Your task to perform on an android device: toggle pop-ups in chrome Image 0: 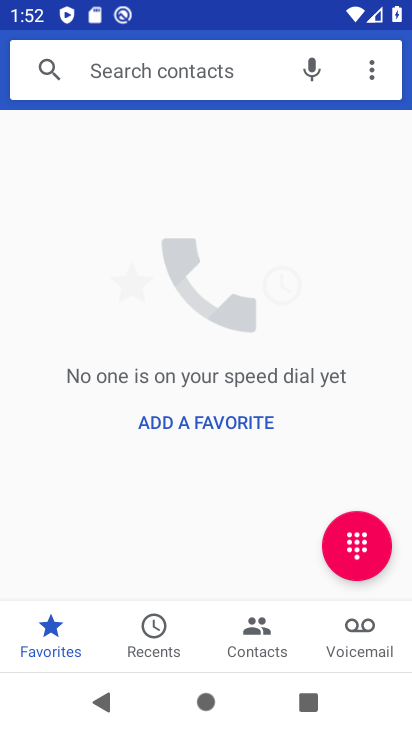
Step 0: press home button
Your task to perform on an android device: toggle pop-ups in chrome Image 1: 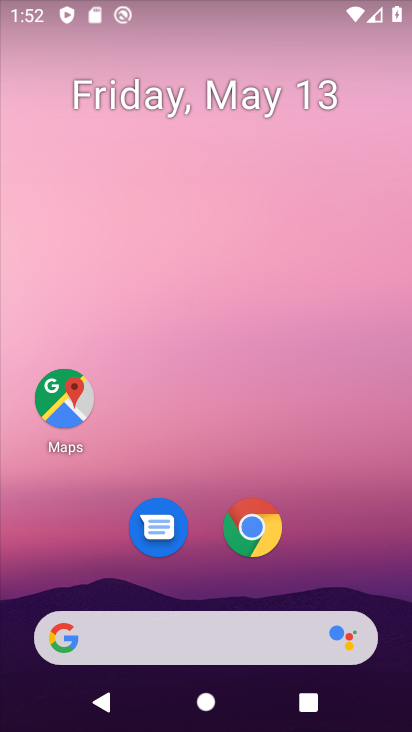
Step 1: drag from (369, 537) to (359, 173)
Your task to perform on an android device: toggle pop-ups in chrome Image 2: 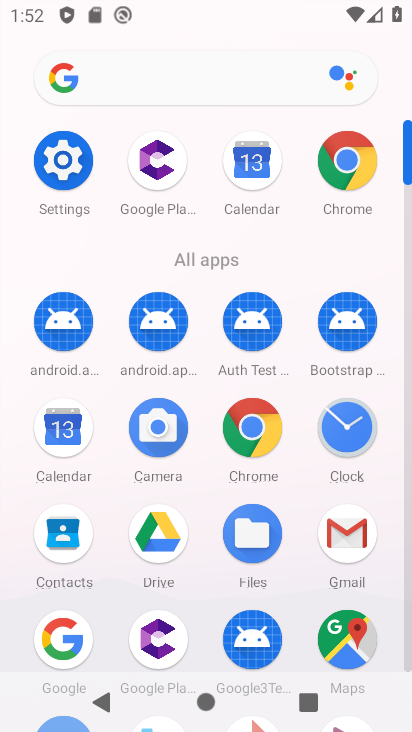
Step 2: click (357, 169)
Your task to perform on an android device: toggle pop-ups in chrome Image 3: 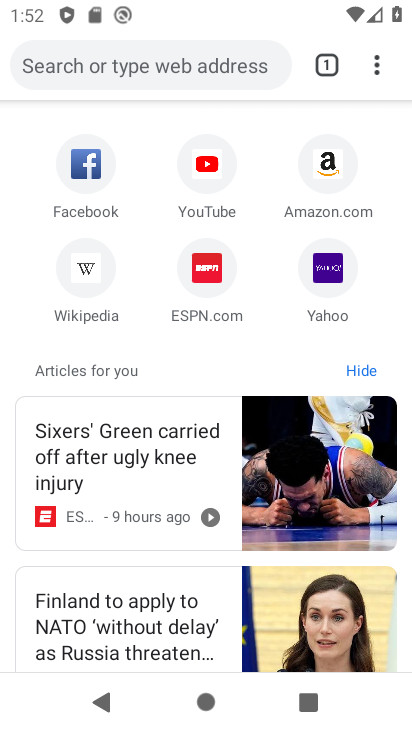
Step 3: drag from (382, 76) to (257, 532)
Your task to perform on an android device: toggle pop-ups in chrome Image 4: 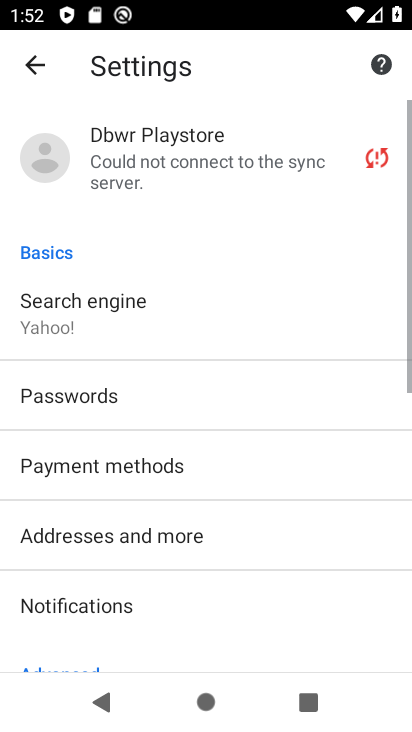
Step 4: drag from (263, 632) to (284, 372)
Your task to perform on an android device: toggle pop-ups in chrome Image 5: 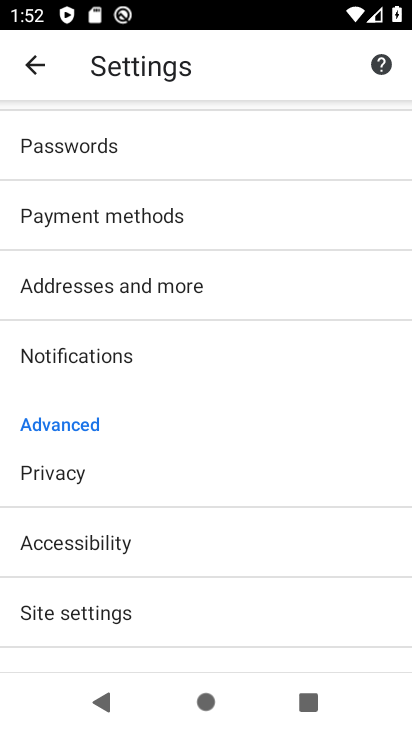
Step 5: drag from (259, 604) to (273, 330)
Your task to perform on an android device: toggle pop-ups in chrome Image 6: 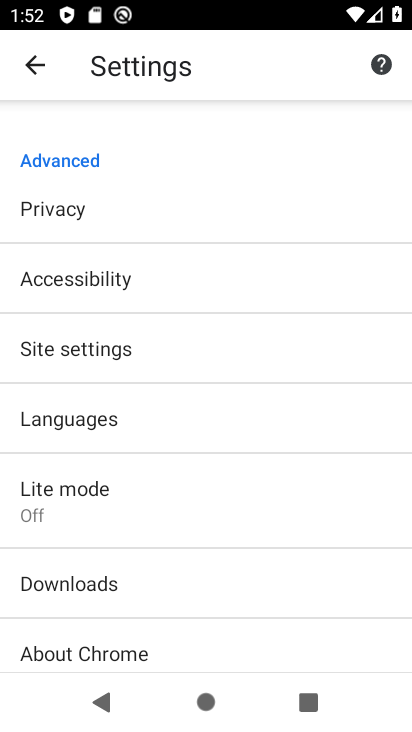
Step 6: click (231, 349)
Your task to perform on an android device: toggle pop-ups in chrome Image 7: 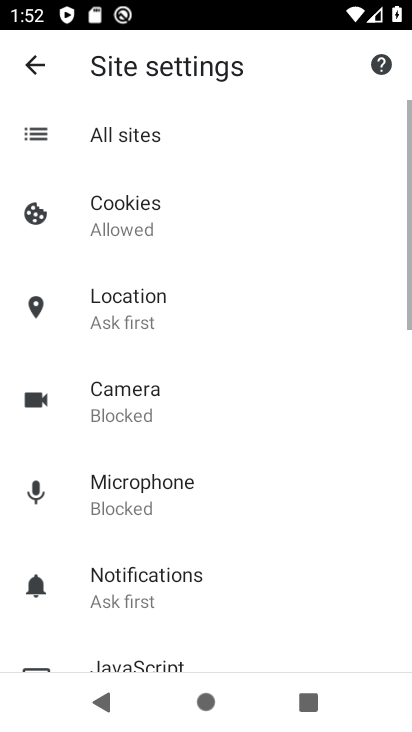
Step 7: drag from (253, 635) to (256, 345)
Your task to perform on an android device: toggle pop-ups in chrome Image 8: 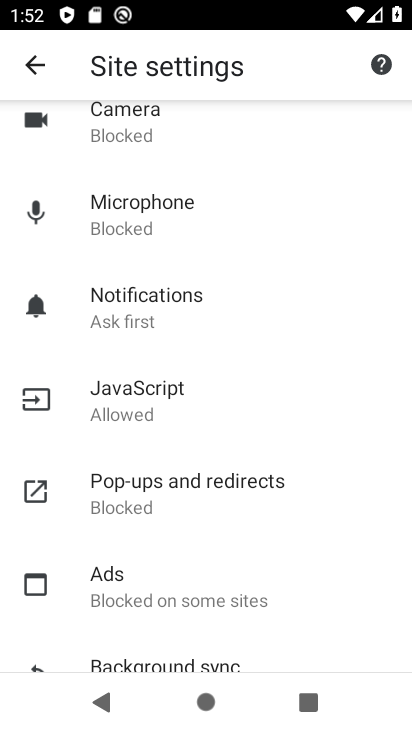
Step 8: click (215, 489)
Your task to perform on an android device: toggle pop-ups in chrome Image 9: 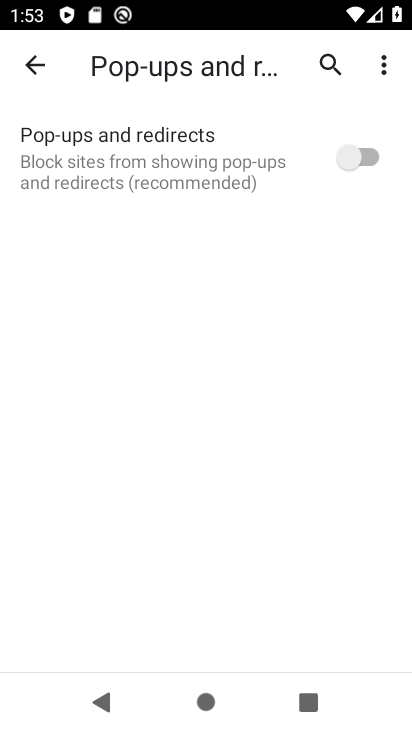
Step 9: click (371, 157)
Your task to perform on an android device: toggle pop-ups in chrome Image 10: 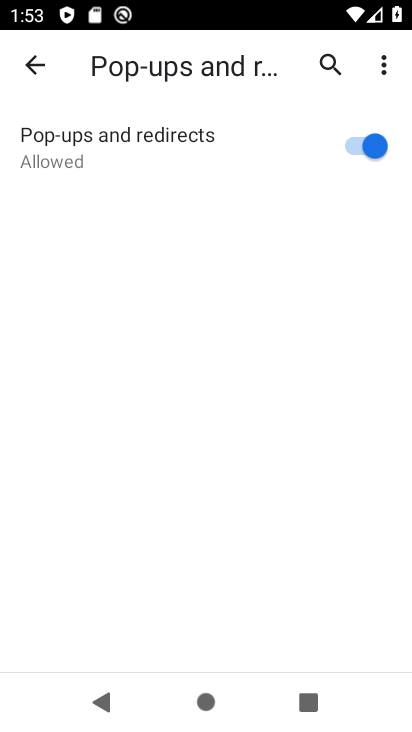
Step 10: press home button
Your task to perform on an android device: toggle pop-ups in chrome Image 11: 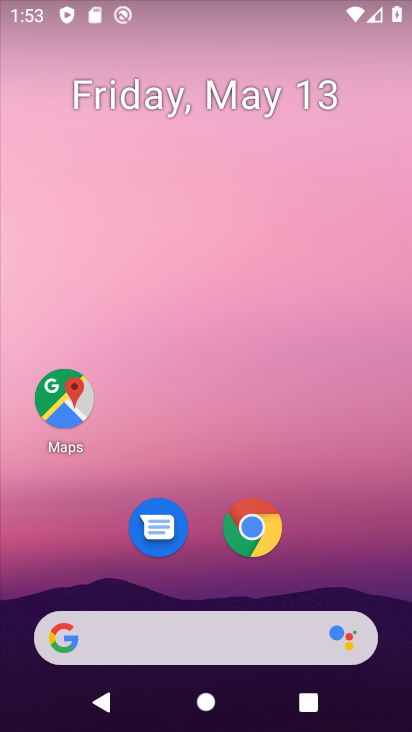
Step 11: drag from (349, 558) to (358, 165)
Your task to perform on an android device: toggle pop-ups in chrome Image 12: 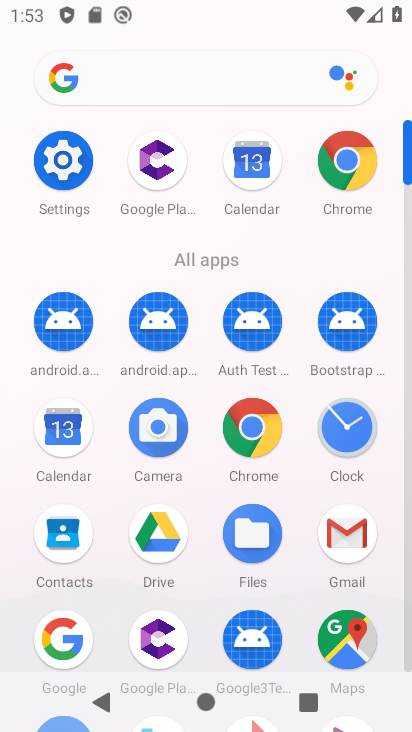
Step 12: click (59, 181)
Your task to perform on an android device: toggle pop-ups in chrome Image 13: 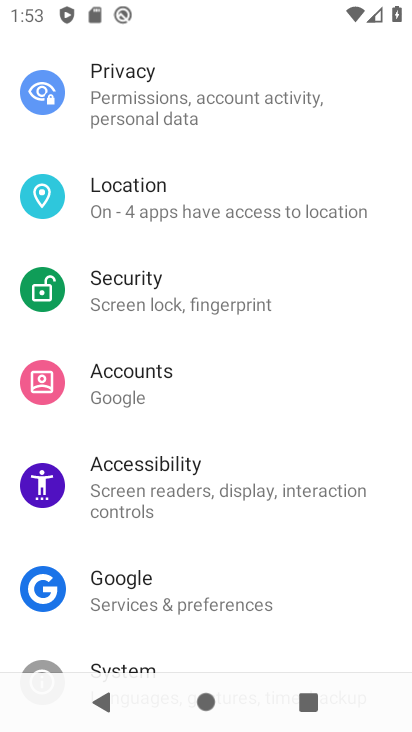
Step 13: press home button
Your task to perform on an android device: toggle pop-ups in chrome Image 14: 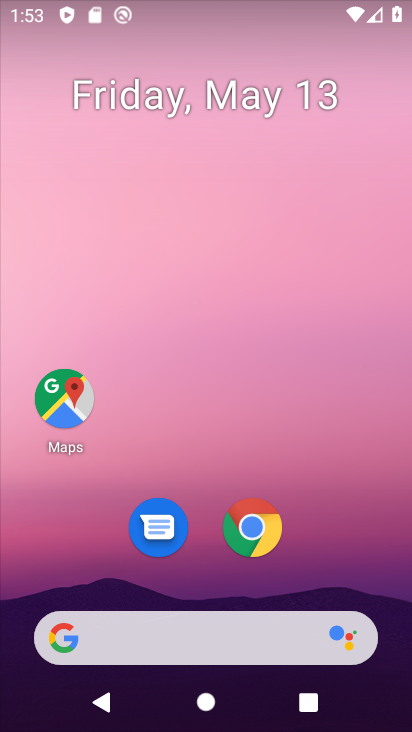
Step 14: drag from (400, 584) to (378, 156)
Your task to perform on an android device: toggle pop-ups in chrome Image 15: 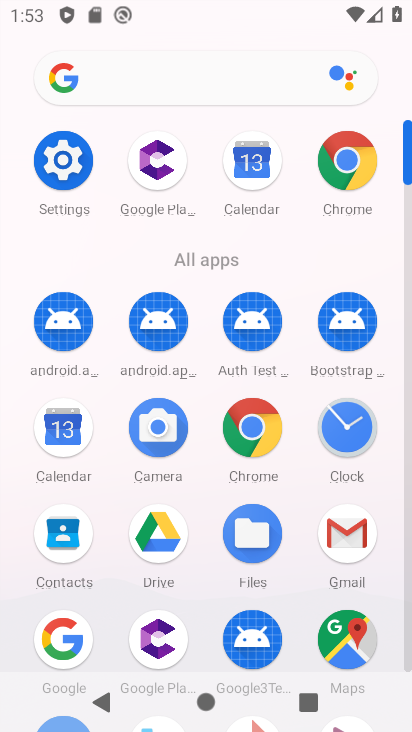
Step 15: click (374, 181)
Your task to perform on an android device: toggle pop-ups in chrome Image 16: 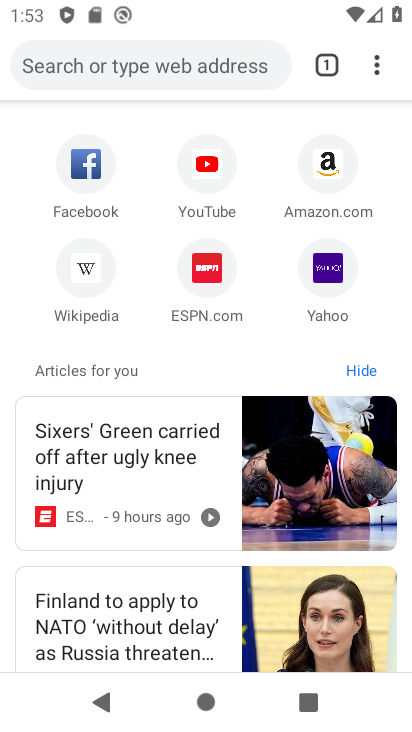
Step 16: drag from (389, 88) to (202, 532)
Your task to perform on an android device: toggle pop-ups in chrome Image 17: 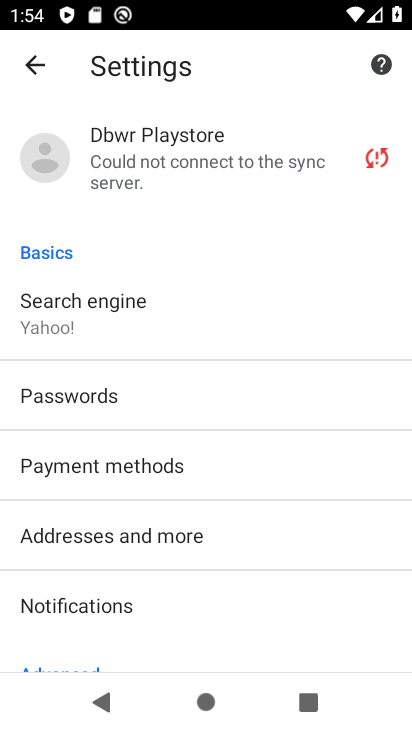
Step 17: drag from (208, 614) to (215, 343)
Your task to perform on an android device: toggle pop-ups in chrome Image 18: 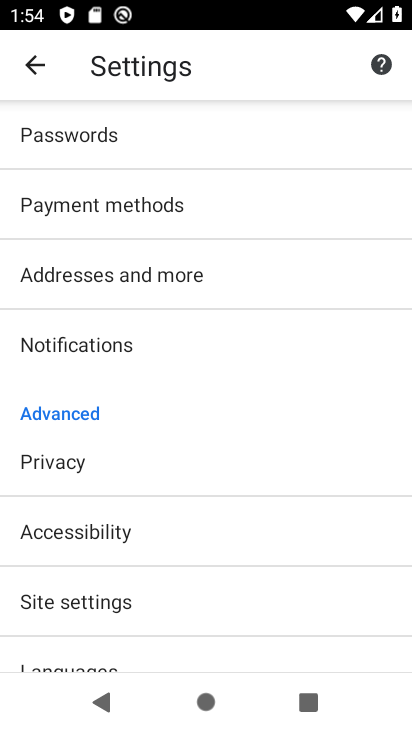
Step 18: drag from (209, 620) to (223, 381)
Your task to perform on an android device: toggle pop-ups in chrome Image 19: 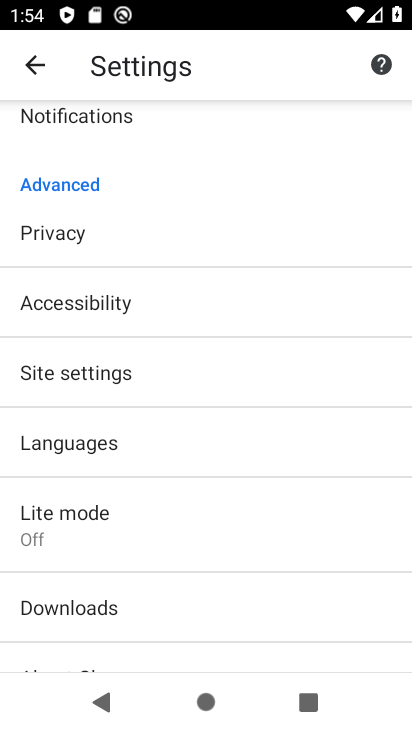
Step 19: click (195, 376)
Your task to perform on an android device: toggle pop-ups in chrome Image 20: 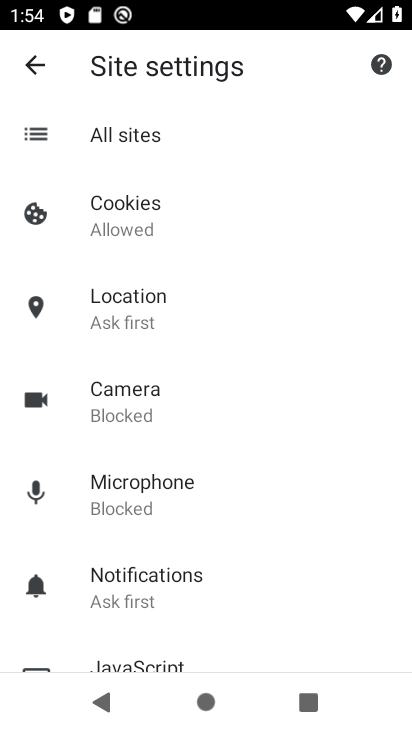
Step 20: drag from (234, 609) to (273, 388)
Your task to perform on an android device: toggle pop-ups in chrome Image 21: 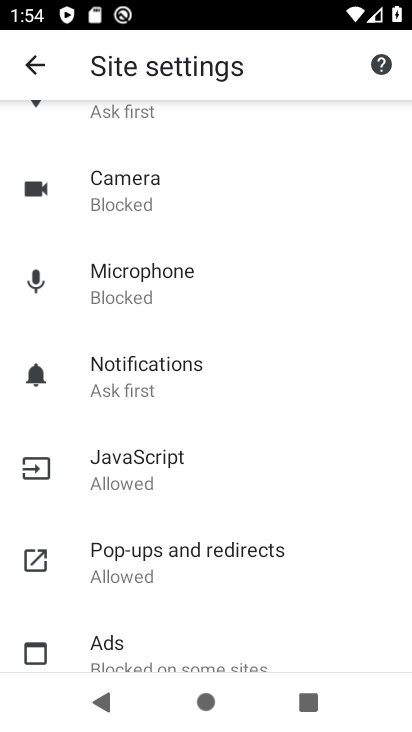
Step 21: click (236, 558)
Your task to perform on an android device: toggle pop-ups in chrome Image 22: 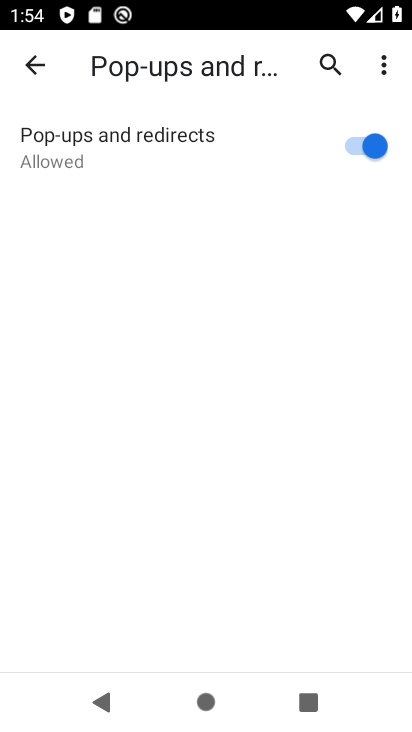
Step 22: click (356, 153)
Your task to perform on an android device: toggle pop-ups in chrome Image 23: 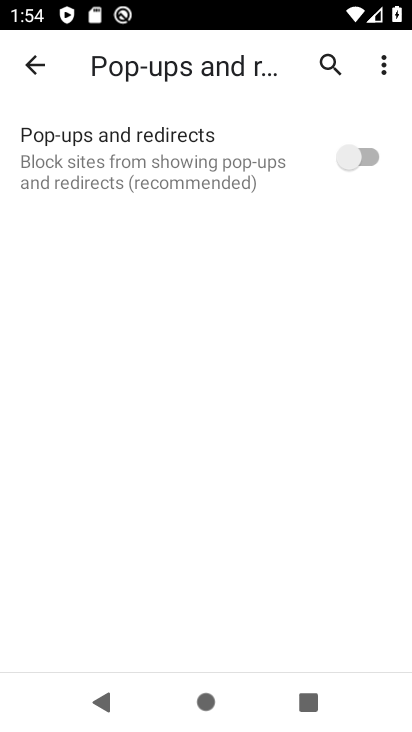
Step 23: task complete